Your task to perform on an android device: turn on airplane mode Image 0: 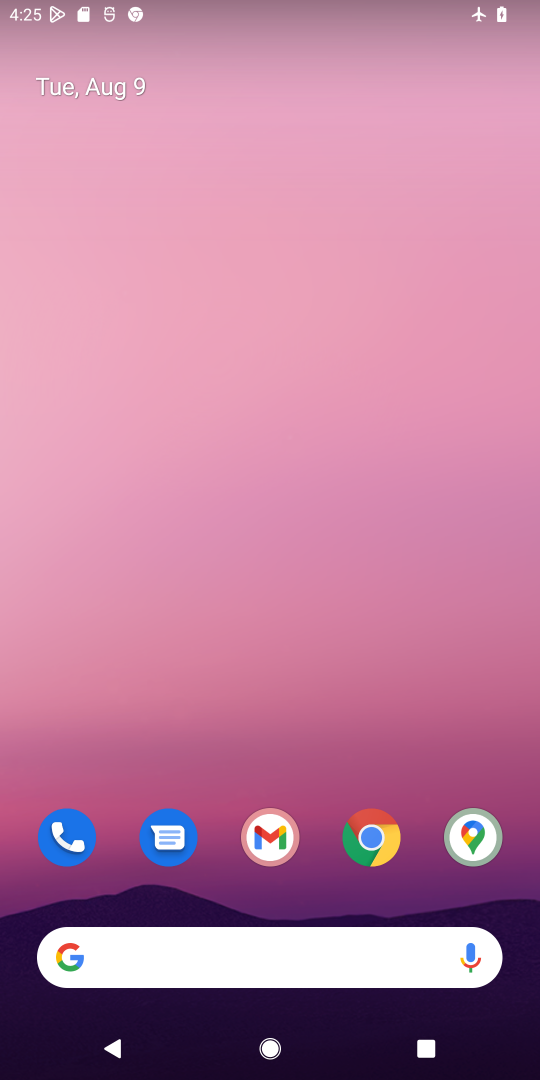
Step 0: drag from (232, 739) to (230, 233)
Your task to perform on an android device: turn on airplane mode Image 1: 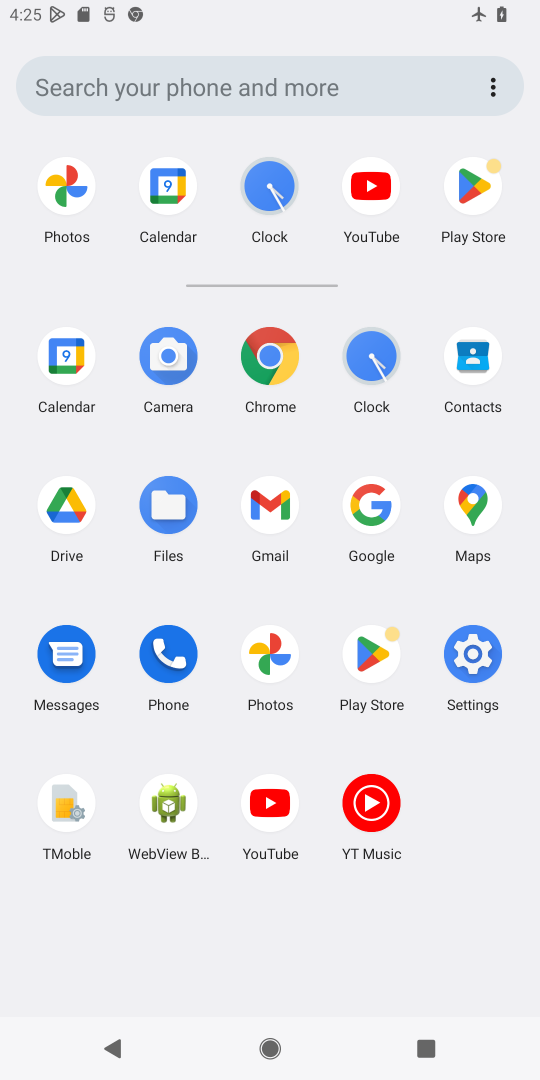
Step 1: click (468, 624)
Your task to perform on an android device: turn on airplane mode Image 2: 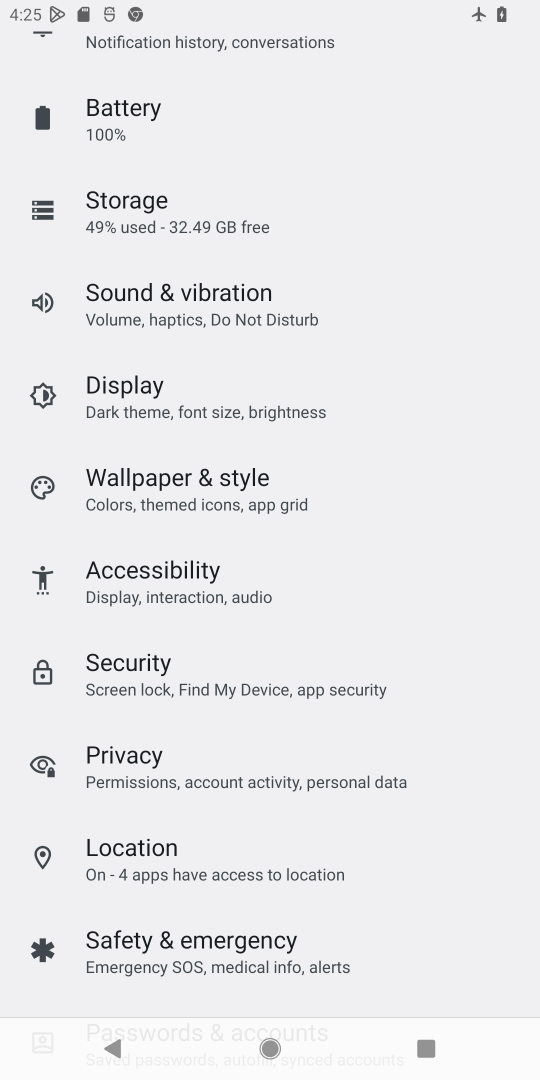
Step 2: drag from (174, 140) to (152, 803)
Your task to perform on an android device: turn on airplane mode Image 3: 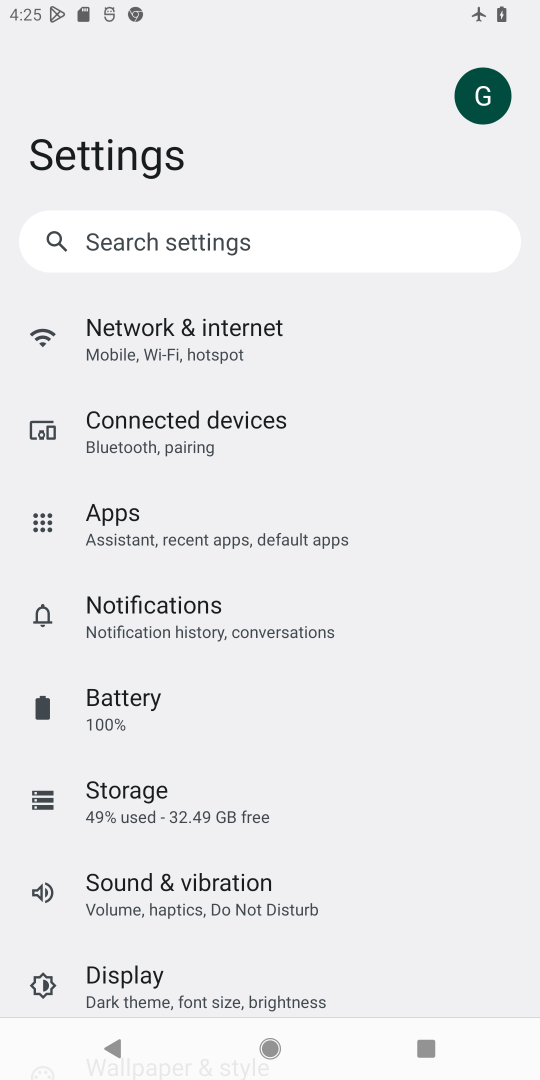
Step 3: click (159, 328)
Your task to perform on an android device: turn on airplane mode Image 4: 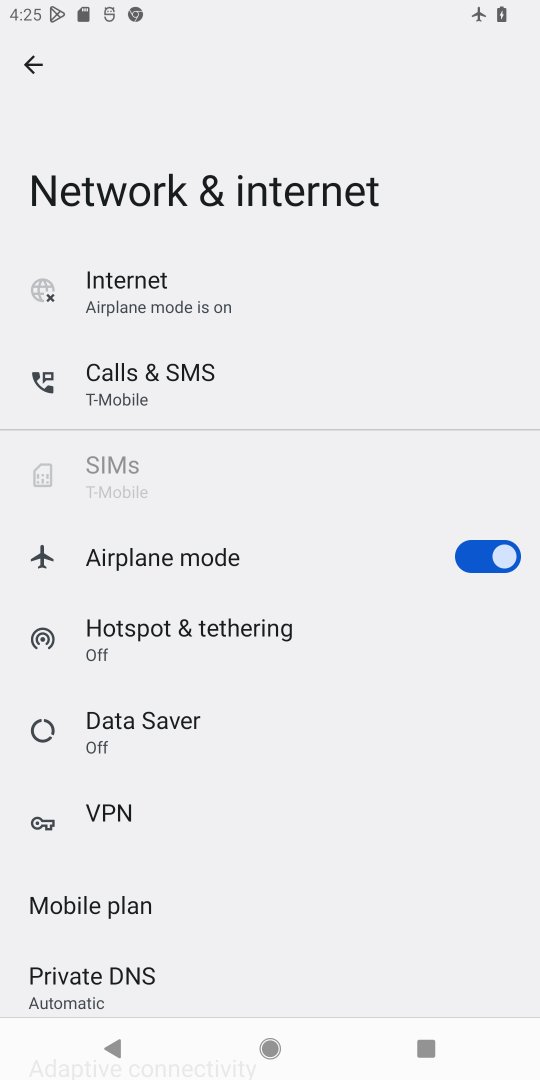
Step 4: click (465, 528)
Your task to perform on an android device: turn on airplane mode Image 5: 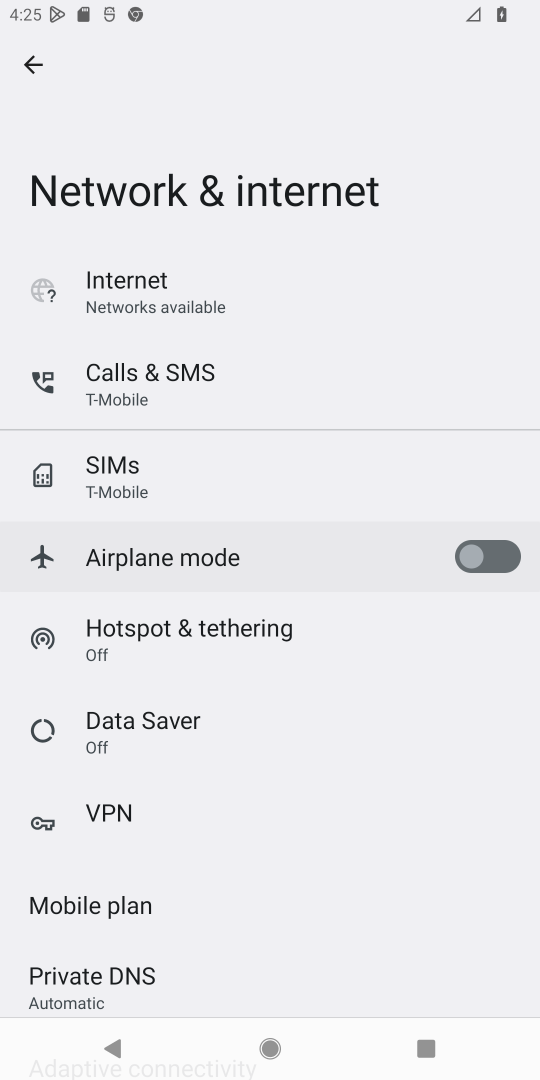
Step 5: click (485, 548)
Your task to perform on an android device: turn on airplane mode Image 6: 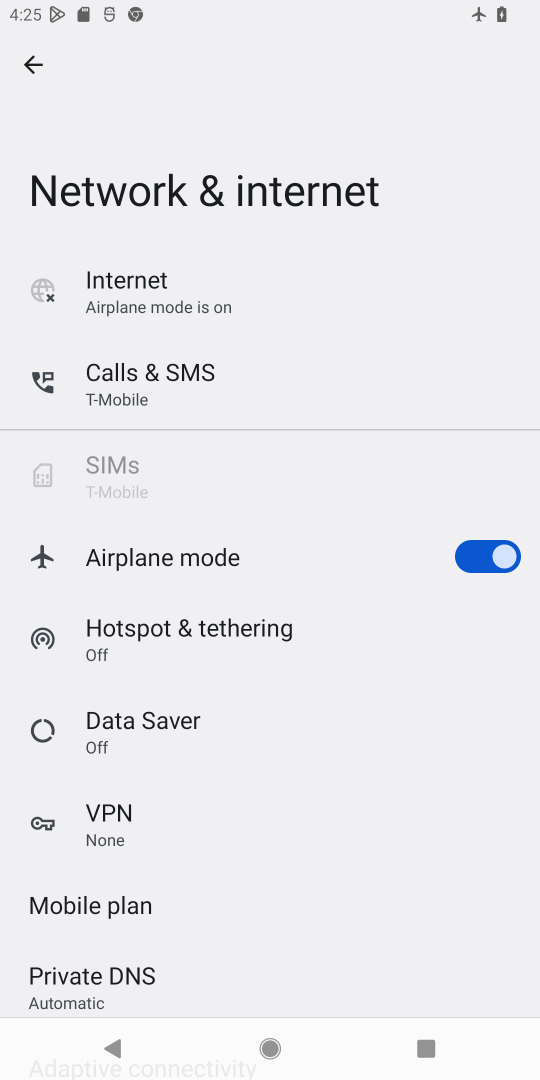
Step 6: task complete